Your task to perform on an android device: Open location settings Image 0: 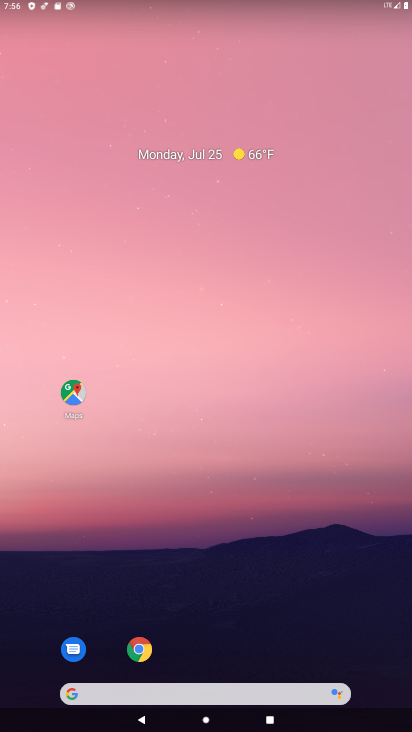
Step 0: drag from (210, 634) to (182, 256)
Your task to perform on an android device: Open location settings Image 1: 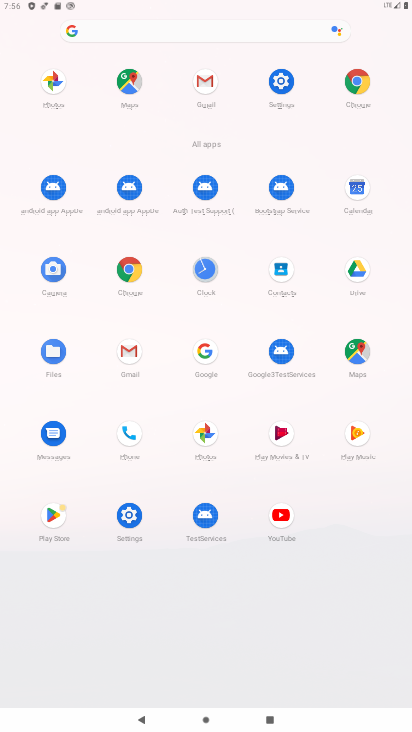
Step 1: click (278, 82)
Your task to perform on an android device: Open location settings Image 2: 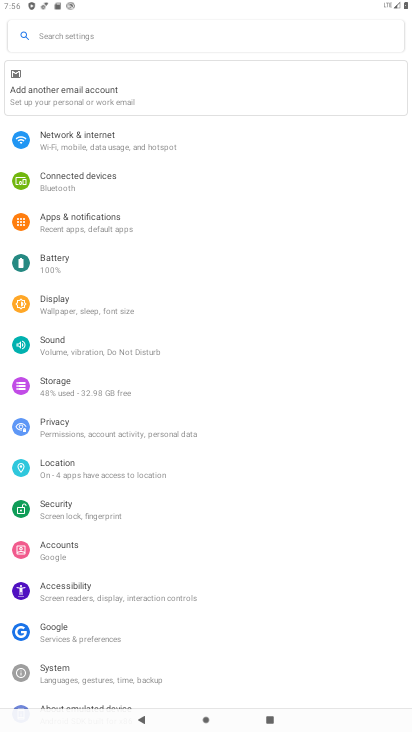
Step 2: click (64, 464)
Your task to perform on an android device: Open location settings Image 3: 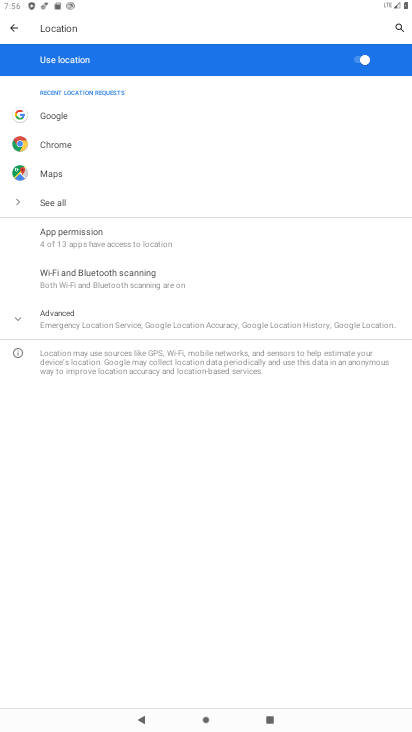
Step 3: task complete